Your task to perform on an android device: open app "PUBG MOBILE" (install if not already installed) Image 0: 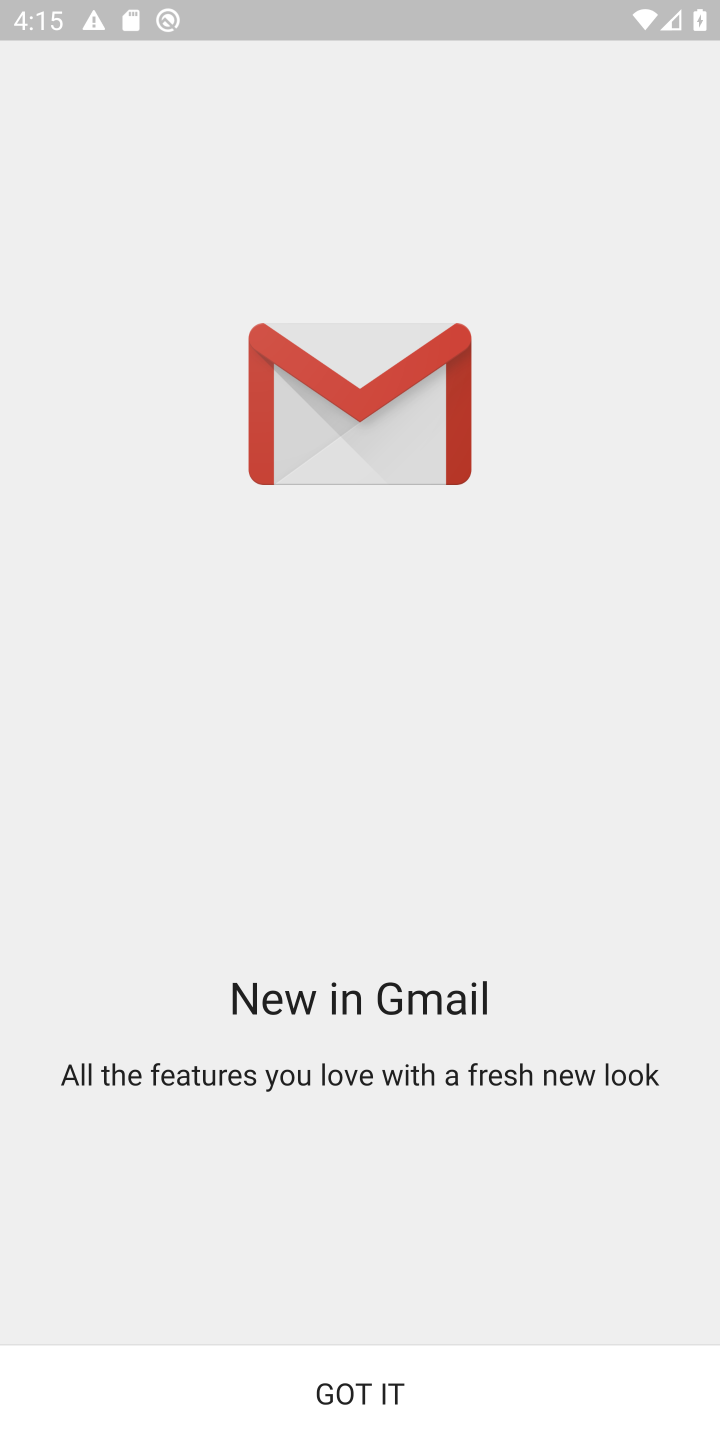
Step 0: press home button
Your task to perform on an android device: open app "PUBG MOBILE" (install if not already installed) Image 1: 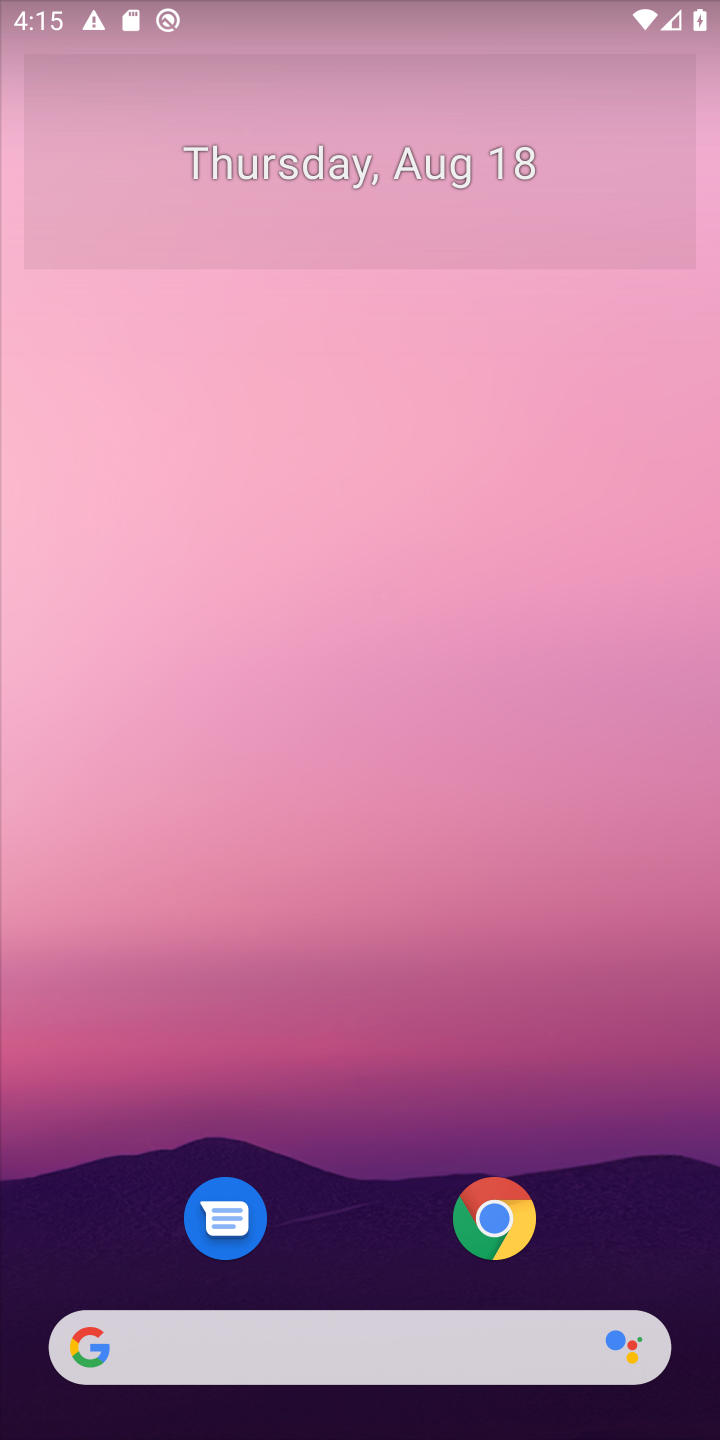
Step 1: drag from (349, 1157) to (328, 263)
Your task to perform on an android device: open app "PUBG MOBILE" (install if not already installed) Image 2: 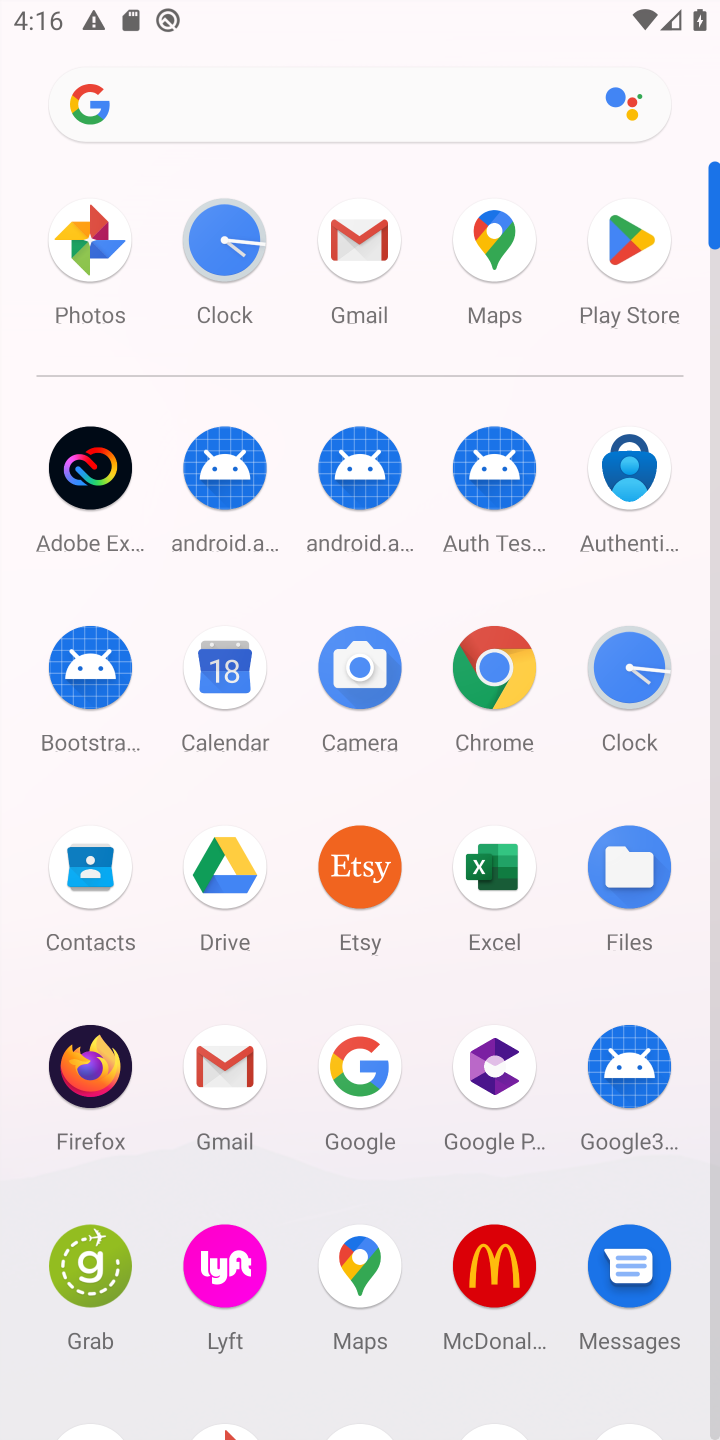
Step 2: click (617, 239)
Your task to perform on an android device: open app "PUBG MOBILE" (install if not already installed) Image 3: 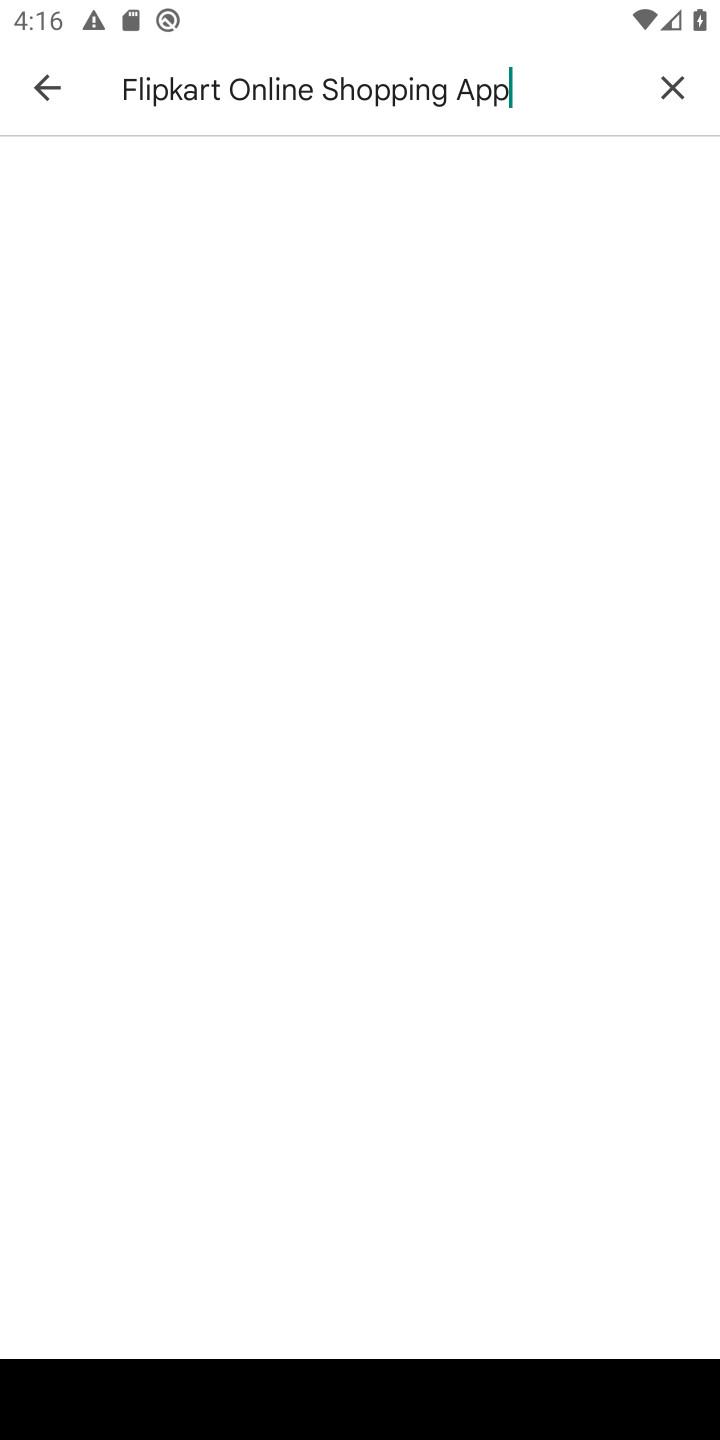
Step 3: click (670, 84)
Your task to perform on an android device: open app "PUBG MOBILE" (install if not already installed) Image 4: 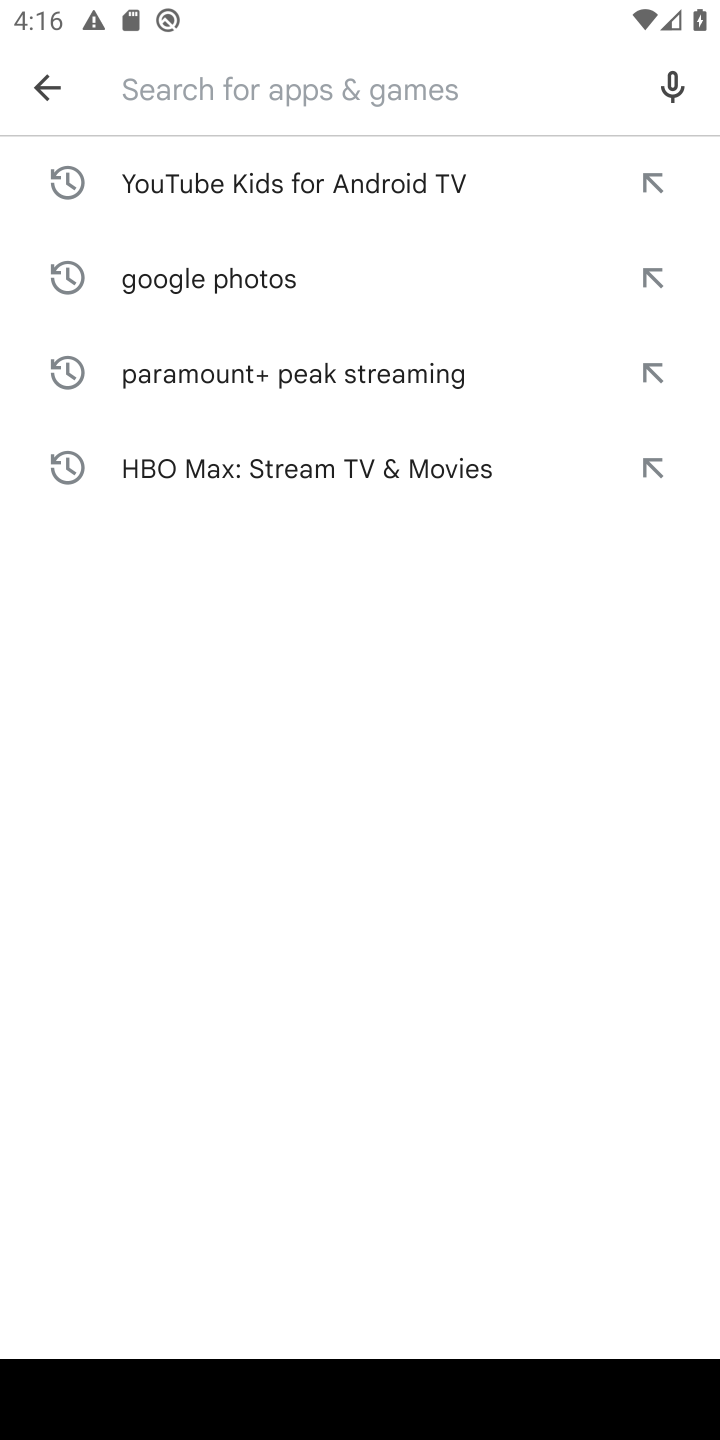
Step 4: type "PUBG MOBILE"
Your task to perform on an android device: open app "PUBG MOBILE" (install if not already installed) Image 5: 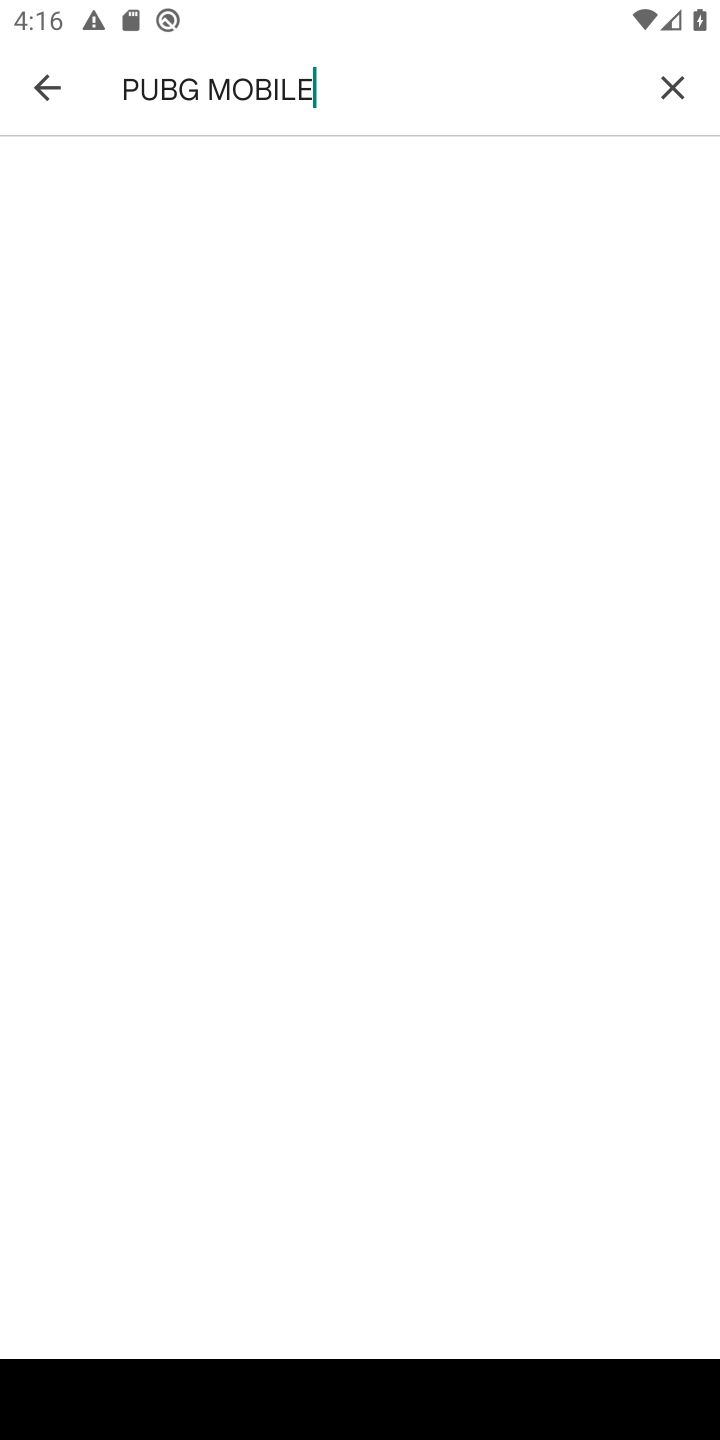
Step 5: task complete